Your task to perform on an android device: open chrome privacy settings Image 0: 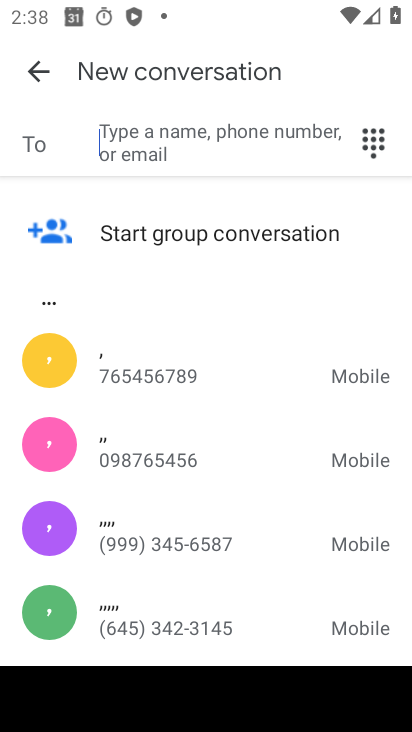
Step 0: click (42, 65)
Your task to perform on an android device: open chrome privacy settings Image 1: 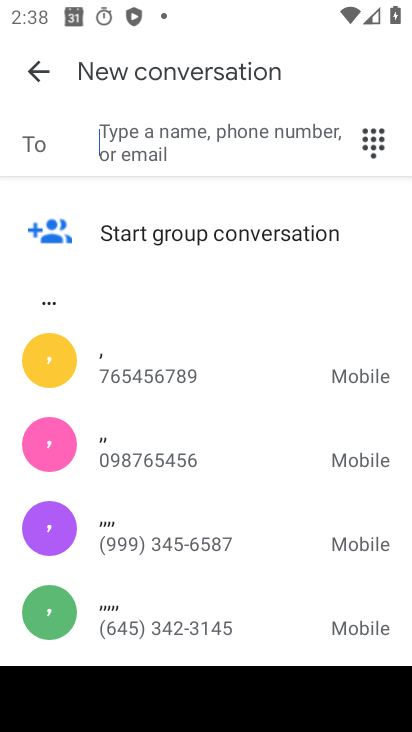
Step 1: press home button
Your task to perform on an android device: open chrome privacy settings Image 2: 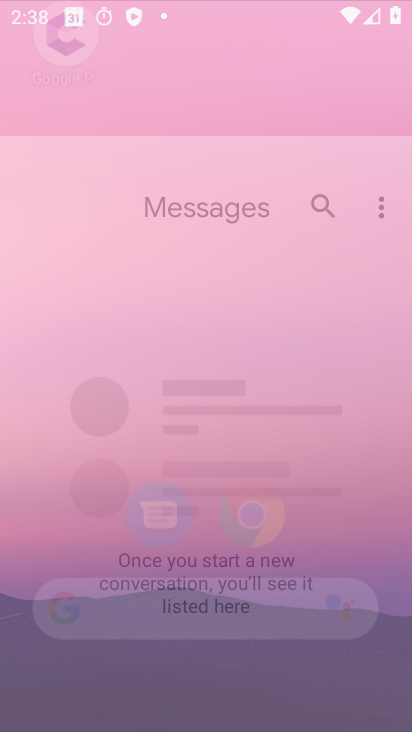
Step 2: press home button
Your task to perform on an android device: open chrome privacy settings Image 3: 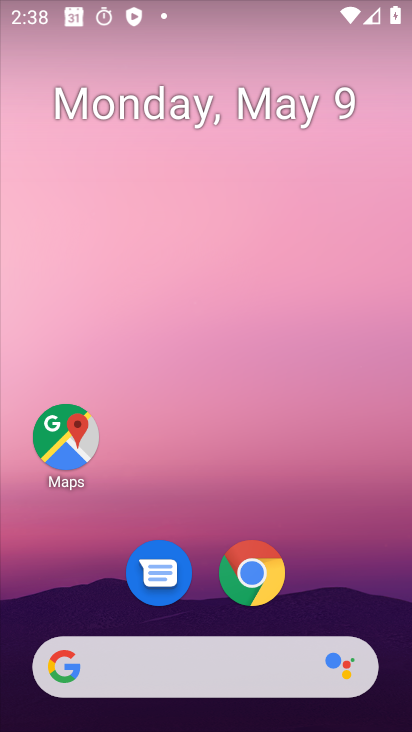
Step 3: press back button
Your task to perform on an android device: open chrome privacy settings Image 4: 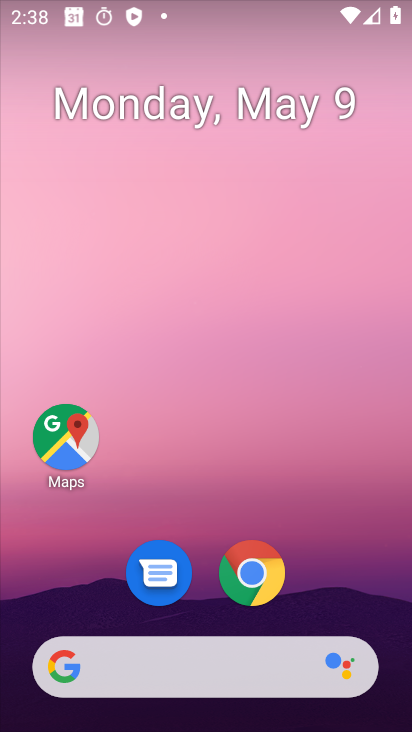
Step 4: press back button
Your task to perform on an android device: open chrome privacy settings Image 5: 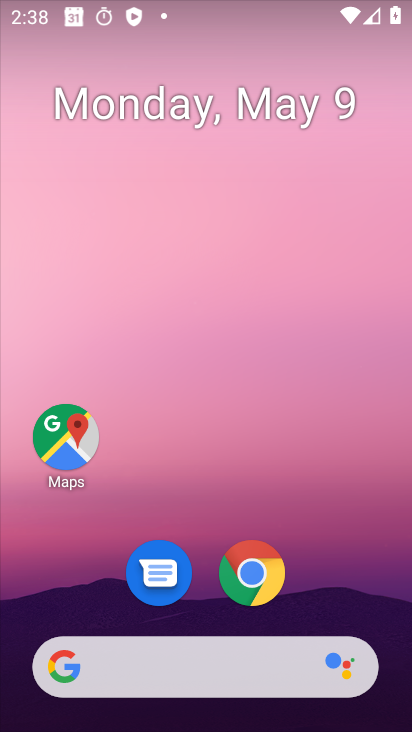
Step 5: drag from (326, 578) to (202, 215)
Your task to perform on an android device: open chrome privacy settings Image 6: 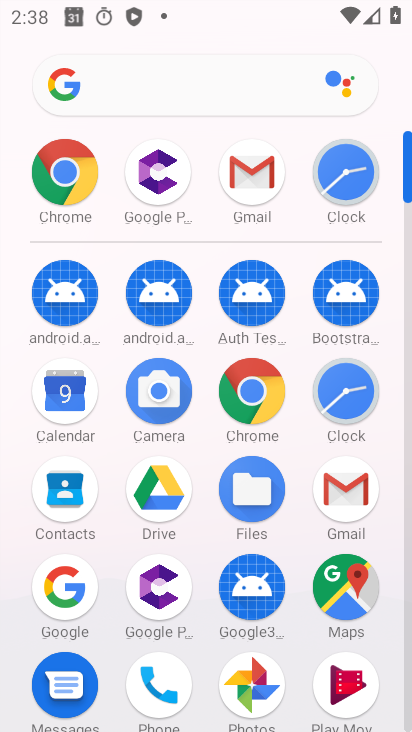
Step 6: drag from (323, 625) to (81, 8)
Your task to perform on an android device: open chrome privacy settings Image 7: 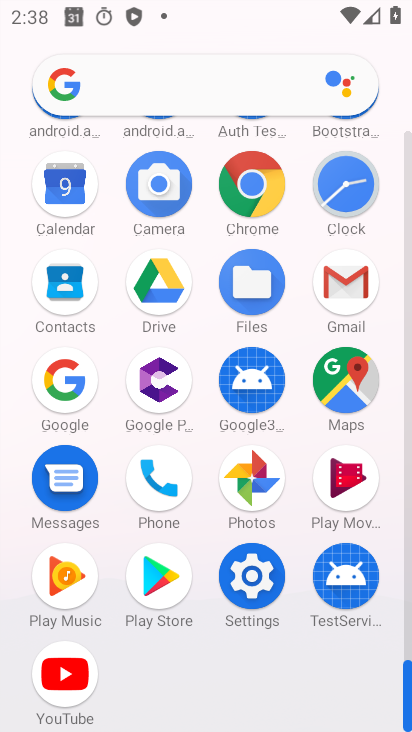
Step 7: click (250, 199)
Your task to perform on an android device: open chrome privacy settings Image 8: 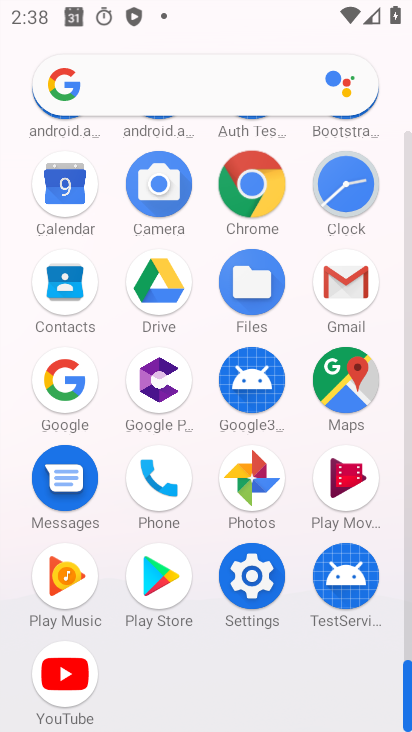
Step 8: click (251, 200)
Your task to perform on an android device: open chrome privacy settings Image 9: 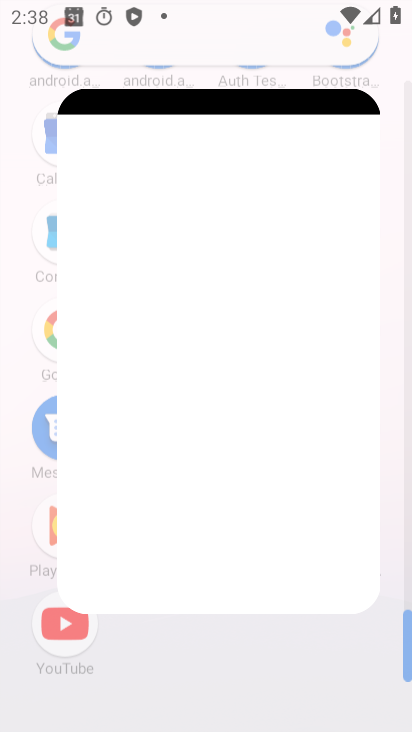
Step 9: click (252, 200)
Your task to perform on an android device: open chrome privacy settings Image 10: 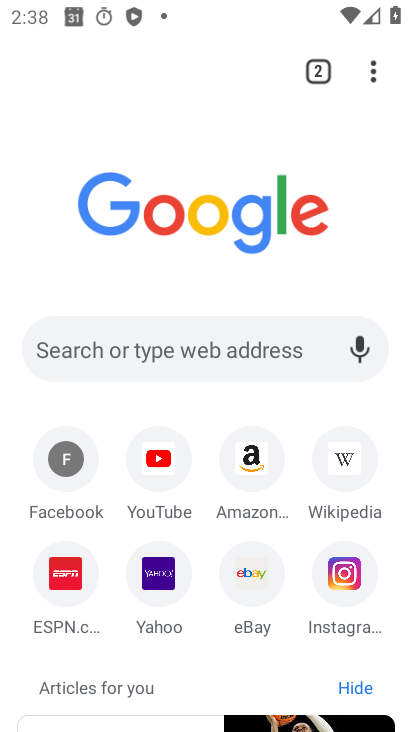
Step 10: click (366, 81)
Your task to perform on an android device: open chrome privacy settings Image 11: 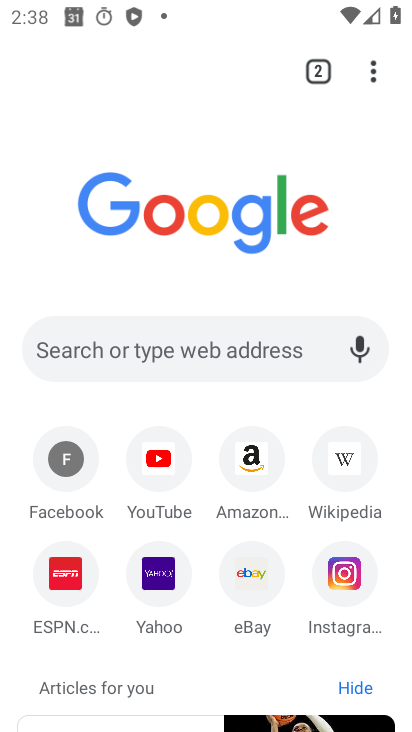
Step 11: drag from (369, 65) to (118, 600)
Your task to perform on an android device: open chrome privacy settings Image 12: 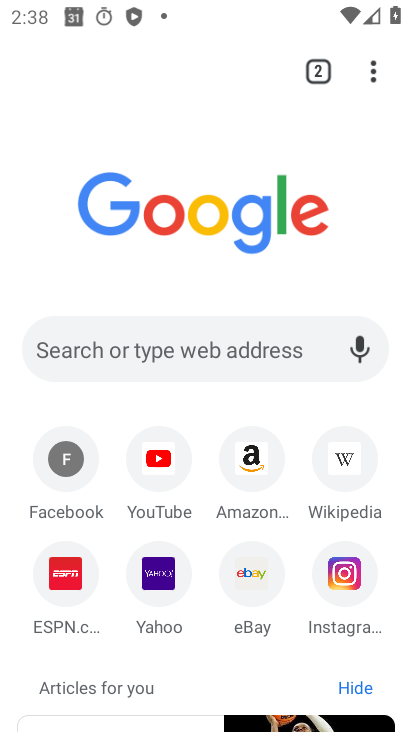
Step 12: click (114, 602)
Your task to perform on an android device: open chrome privacy settings Image 13: 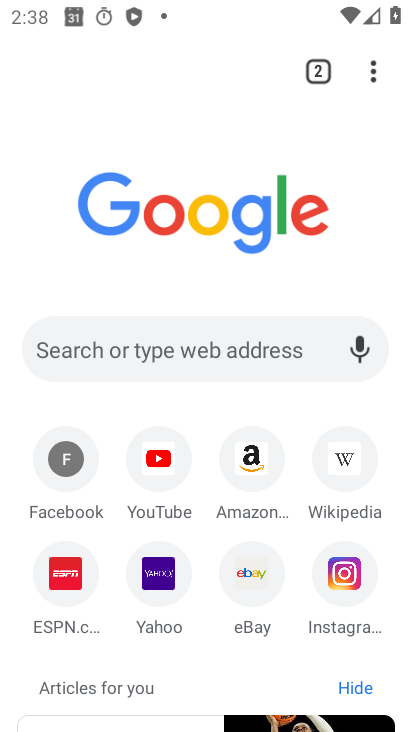
Step 13: click (113, 600)
Your task to perform on an android device: open chrome privacy settings Image 14: 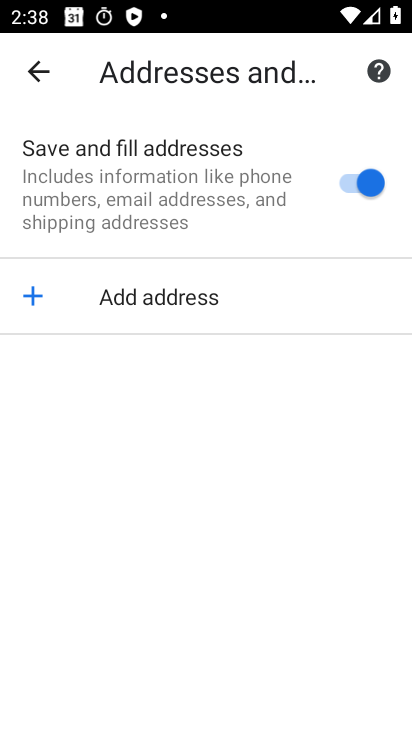
Step 14: click (38, 78)
Your task to perform on an android device: open chrome privacy settings Image 15: 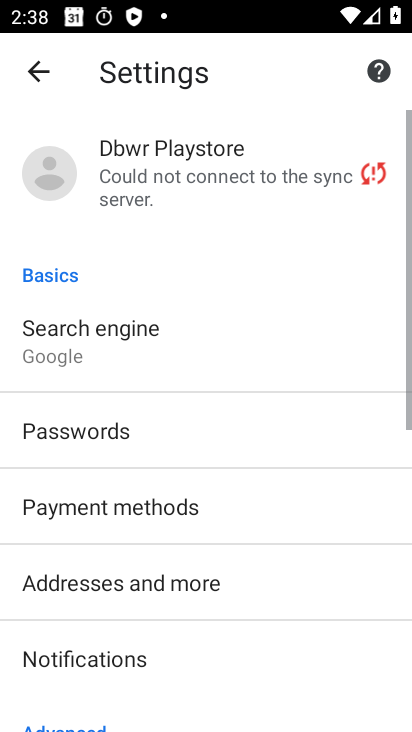
Step 15: drag from (141, 183) to (275, 213)
Your task to perform on an android device: open chrome privacy settings Image 16: 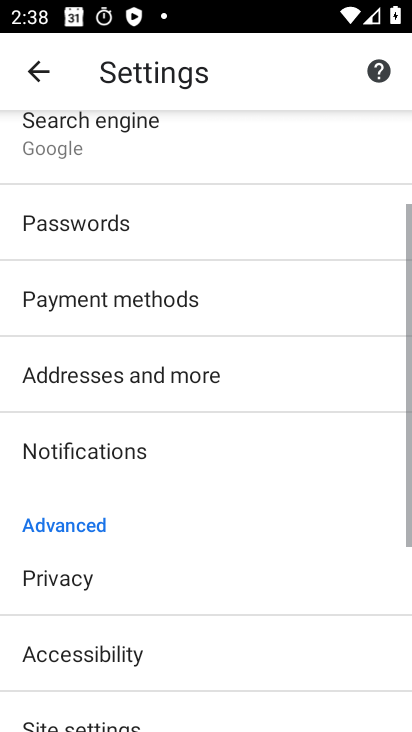
Step 16: drag from (193, 589) to (121, 88)
Your task to perform on an android device: open chrome privacy settings Image 17: 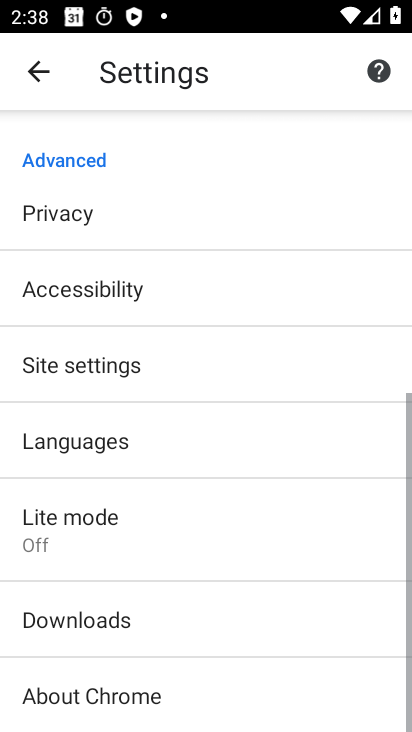
Step 17: drag from (135, 591) to (143, 208)
Your task to perform on an android device: open chrome privacy settings Image 18: 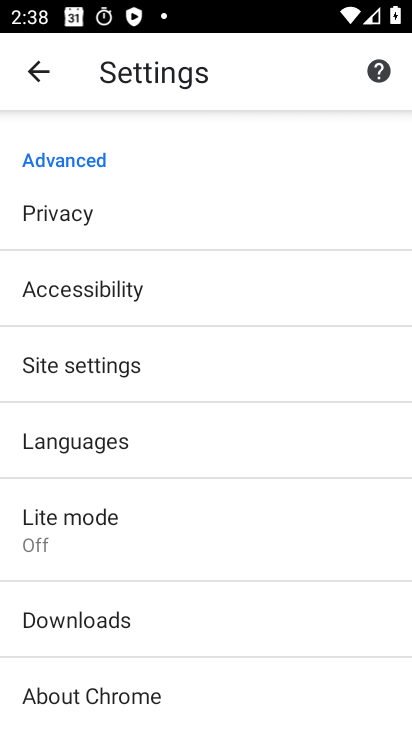
Step 18: click (80, 355)
Your task to perform on an android device: open chrome privacy settings Image 19: 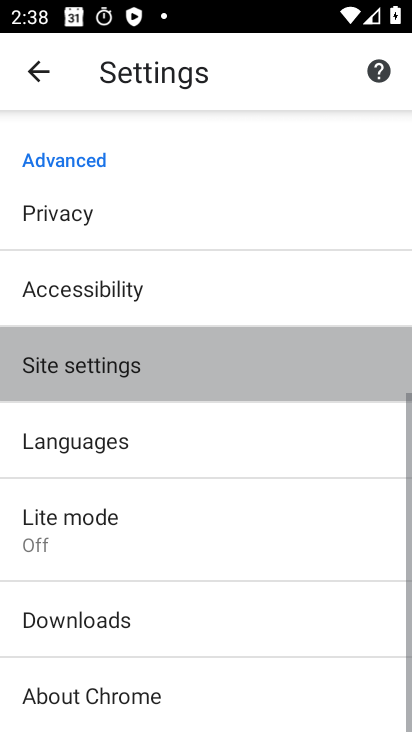
Step 19: click (85, 375)
Your task to perform on an android device: open chrome privacy settings Image 20: 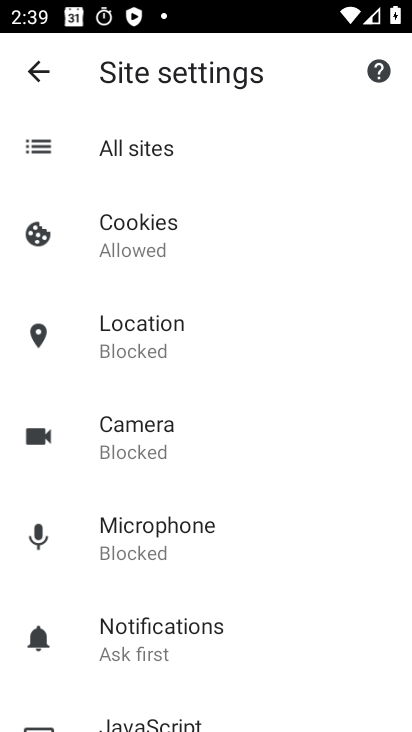
Step 20: drag from (171, 632) to (167, 192)
Your task to perform on an android device: open chrome privacy settings Image 21: 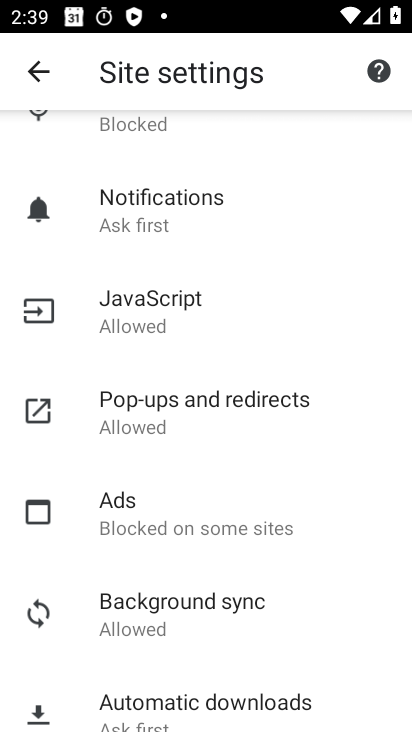
Step 21: click (37, 67)
Your task to perform on an android device: open chrome privacy settings Image 22: 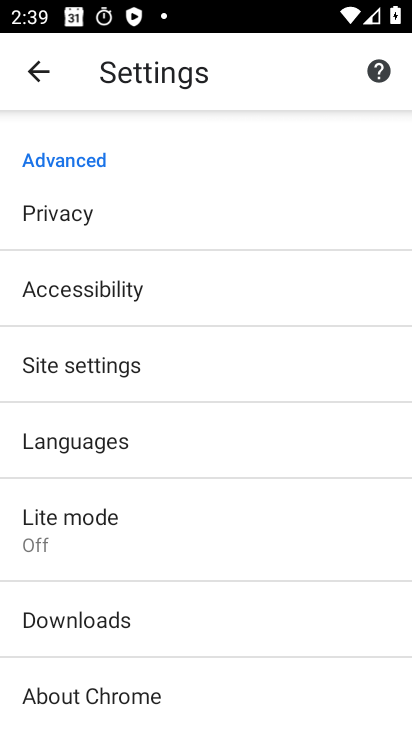
Step 22: click (32, 69)
Your task to perform on an android device: open chrome privacy settings Image 23: 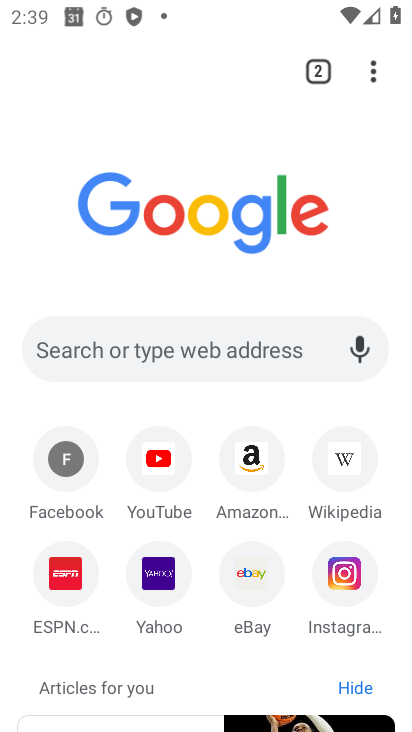
Step 23: click (367, 77)
Your task to perform on an android device: open chrome privacy settings Image 24: 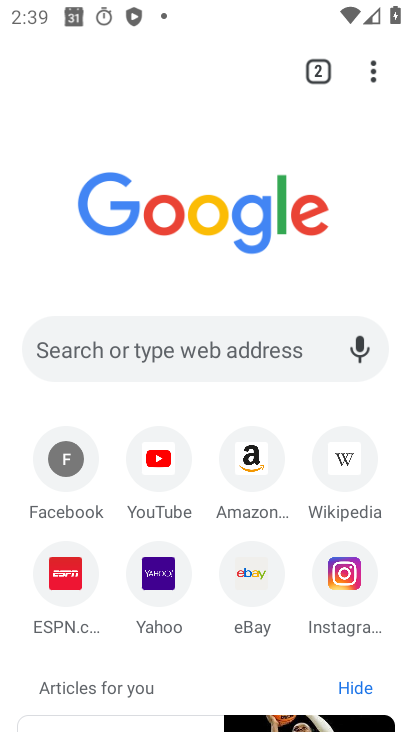
Step 24: drag from (377, 56) to (129, 602)
Your task to perform on an android device: open chrome privacy settings Image 25: 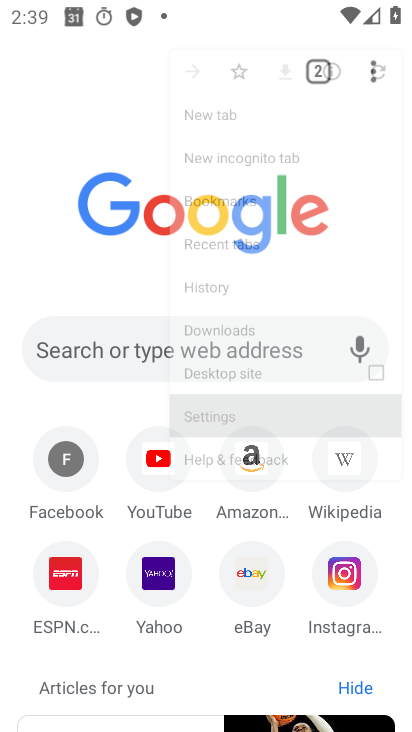
Step 25: click (110, 606)
Your task to perform on an android device: open chrome privacy settings Image 26: 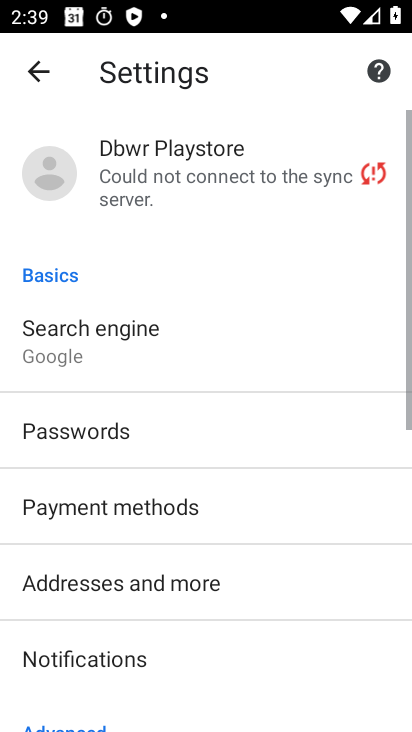
Step 26: drag from (87, 573) to (32, 182)
Your task to perform on an android device: open chrome privacy settings Image 27: 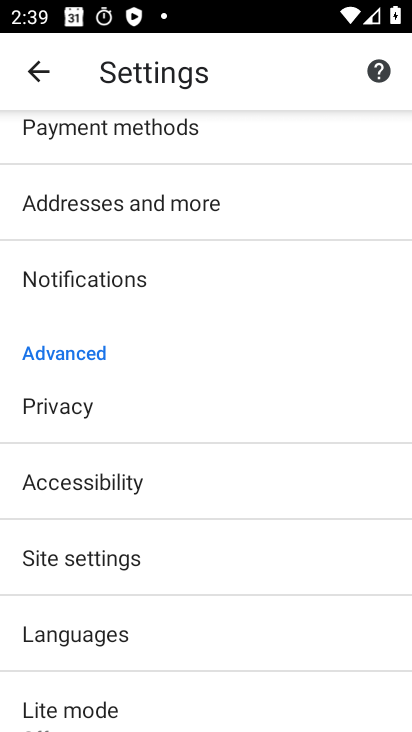
Step 27: click (49, 397)
Your task to perform on an android device: open chrome privacy settings Image 28: 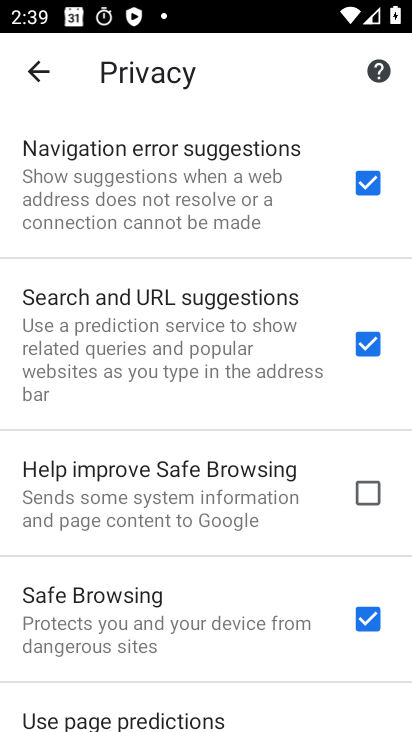
Step 28: task complete